Your task to perform on an android device: See recent photos Image 0: 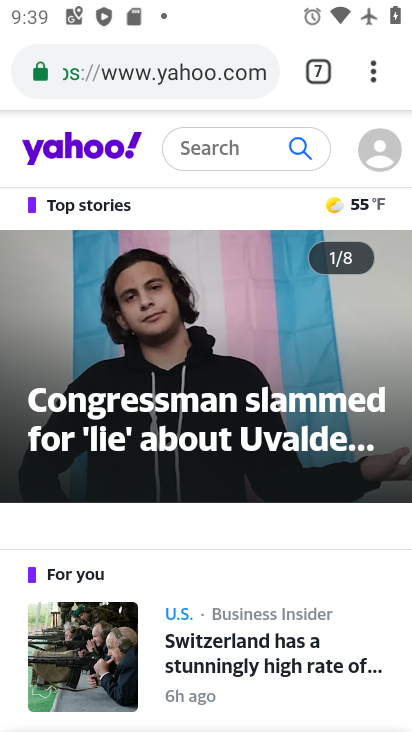
Step 0: press home button
Your task to perform on an android device: See recent photos Image 1: 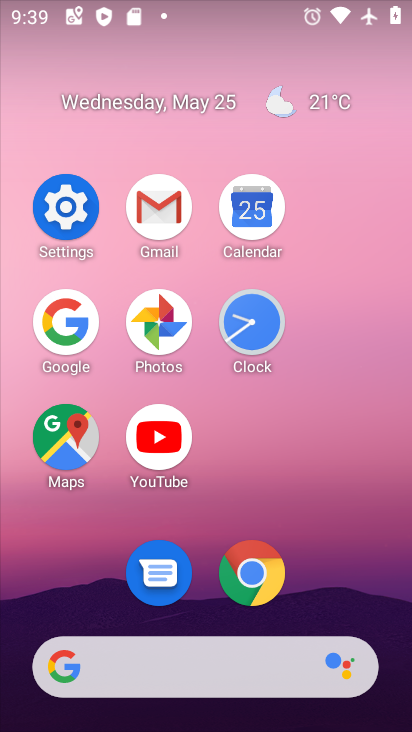
Step 1: click (179, 333)
Your task to perform on an android device: See recent photos Image 2: 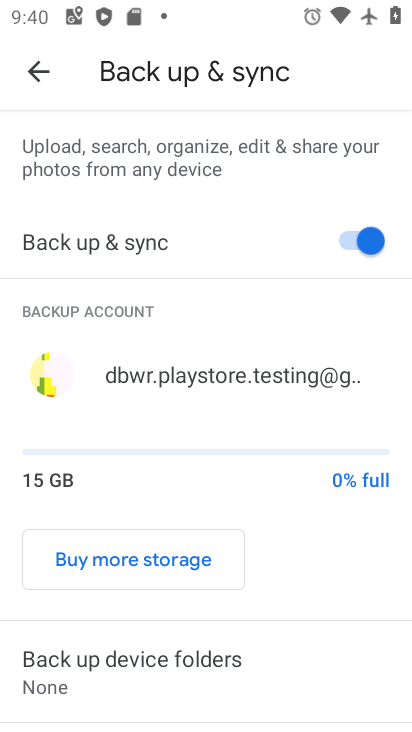
Step 2: click (46, 87)
Your task to perform on an android device: See recent photos Image 3: 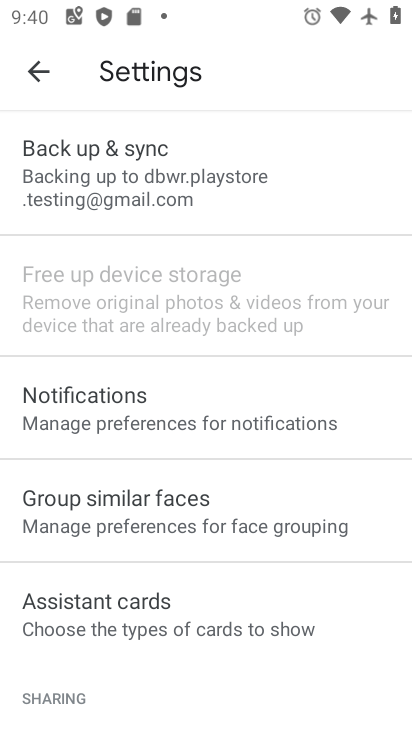
Step 3: click (40, 78)
Your task to perform on an android device: See recent photos Image 4: 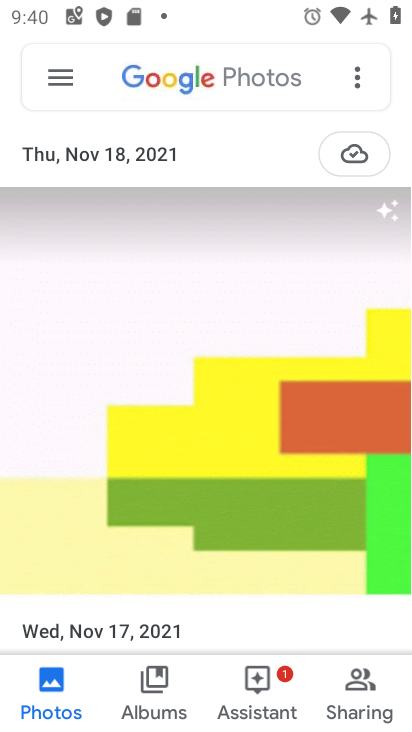
Step 4: task complete